Your task to perform on an android device: open wifi settings Image 0: 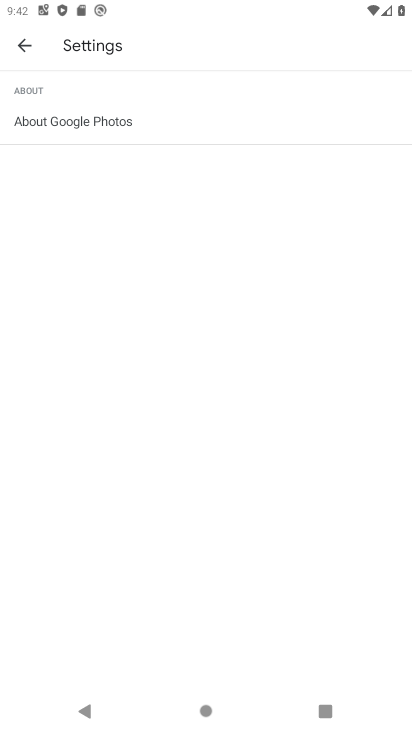
Step 0: press home button
Your task to perform on an android device: open wifi settings Image 1: 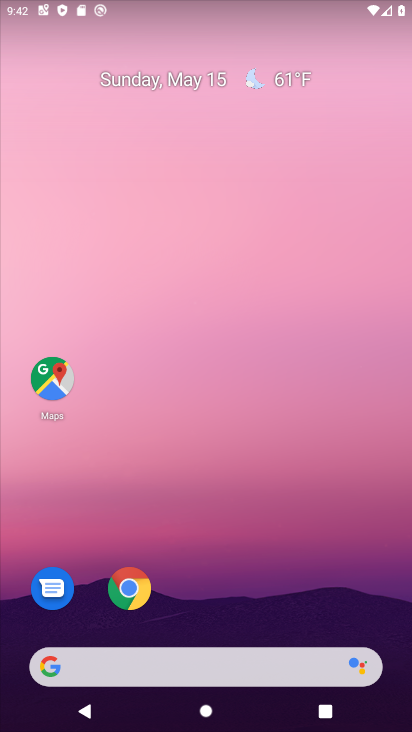
Step 1: drag from (220, 594) to (286, 68)
Your task to perform on an android device: open wifi settings Image 2: 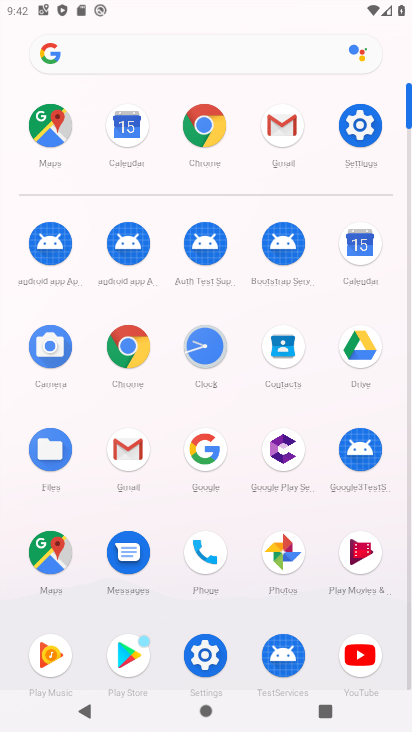
Step 2: click (370, 146)
Your task to perform on an android device: open wifi settings Image 3: 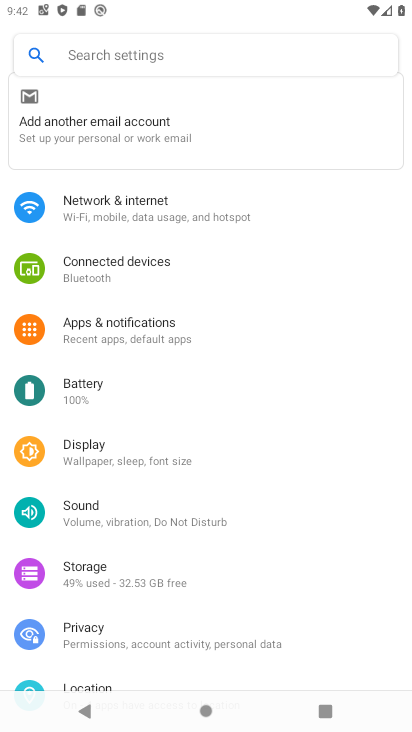
Step 3: click (128, 218)
Your task to perform on an android device: open wifi settings Image 4: 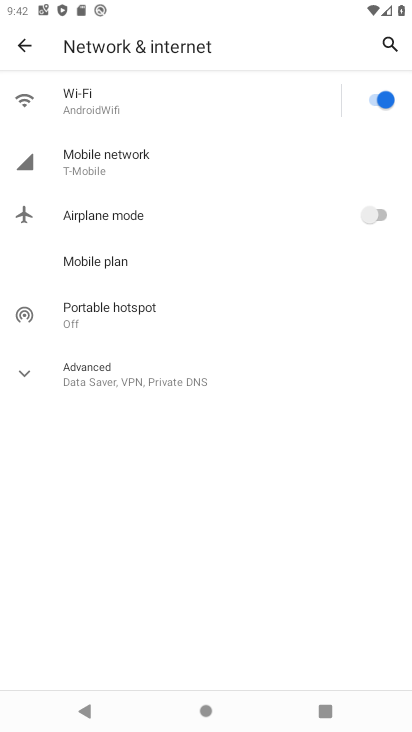
Step 4: click (120, 102)
Your task to perform on an android device: open wifi settings Image 5: 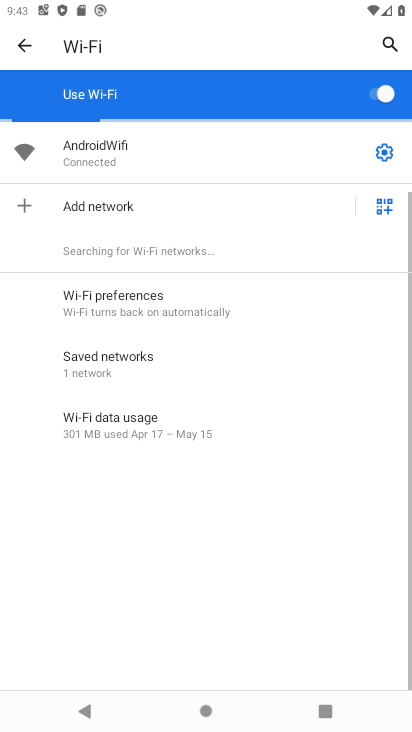
Step 5: task complete